Your task to perform on an android device: toggle sleep mode Image 0: 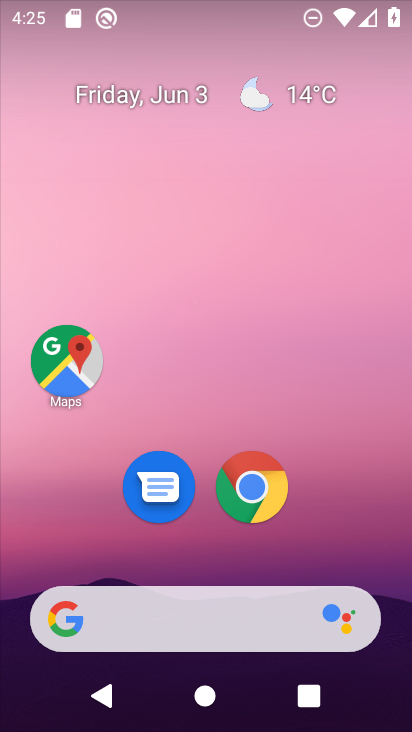
Step 0: drag from (203, 565) to (207, 47)
Your task to perform on an android device: toggle sleep mode Image 1: 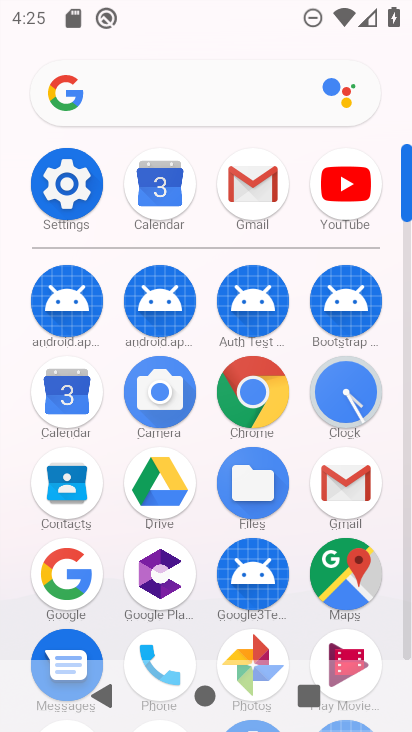
Step 1: click (94, 147)
Your task to perform on an android device: toggle sleep mode Image 2: 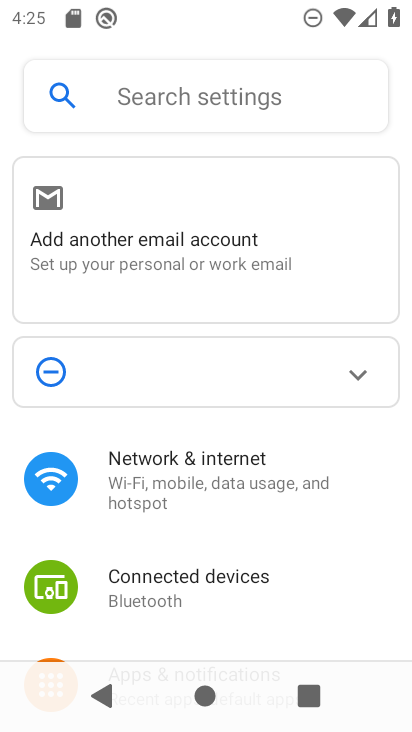
Step 2: click (152, 92)
Your task to perform on an android device: toggle sleep mode Image 3: 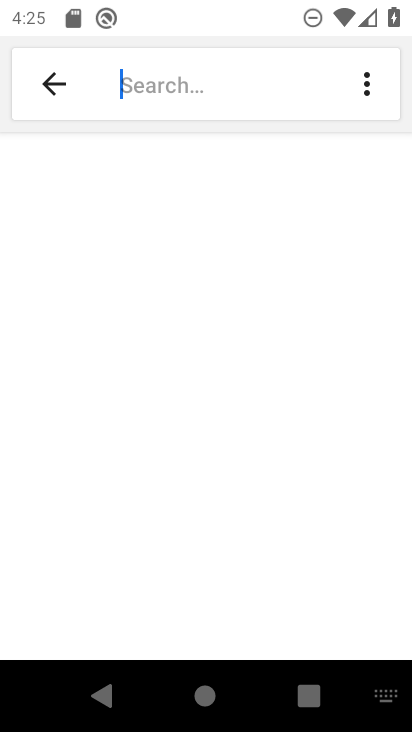
Step 3: type "sleep mode"
Your task to perform on an android device: toggle sleep mode Image 4: 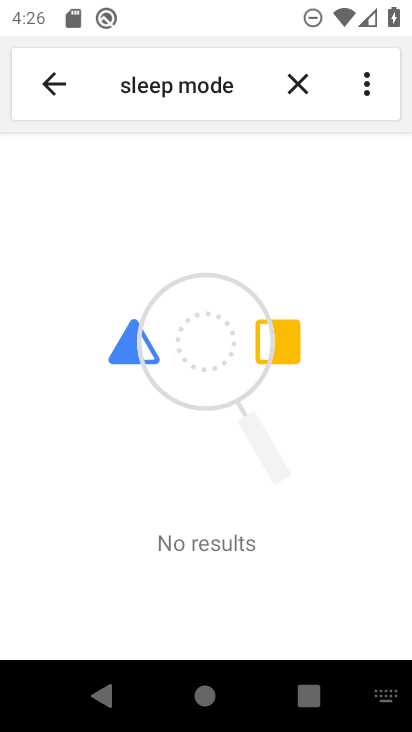
Step 4: task complete